Your task to perform on an android device: Go to Maps Image 0: 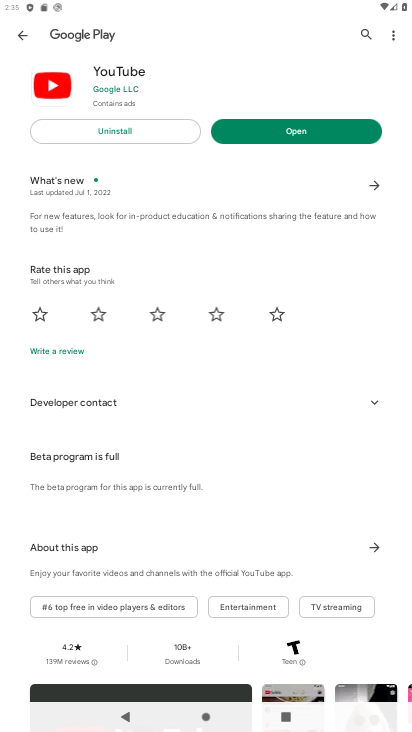
Step 0: press home button
Your task to perform on an android device: Go to Maps Image 1: 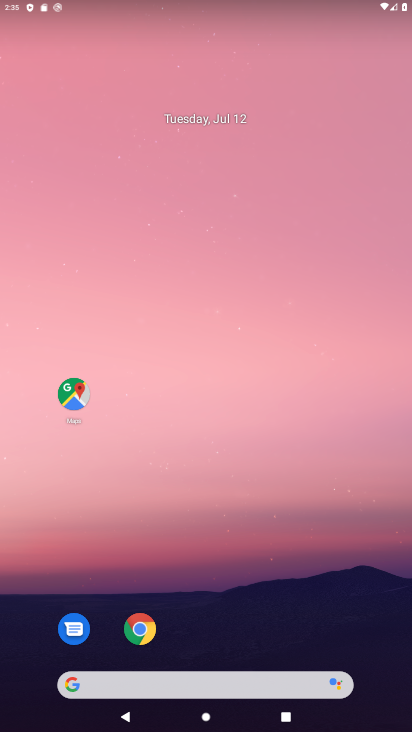
Step 1: click (74, 395)
Your task to perform on an android device: Go to Maps Image 2: 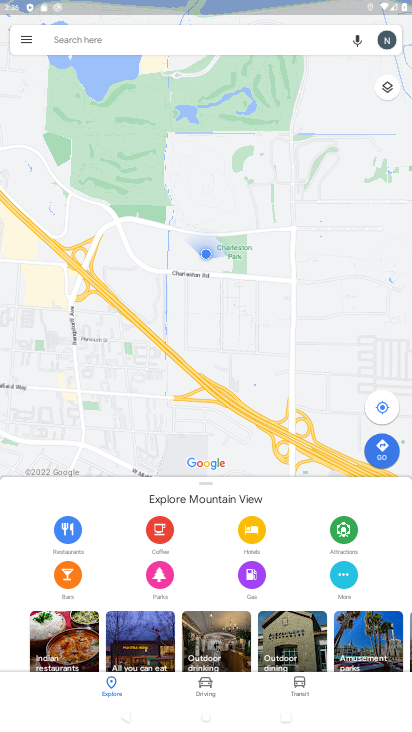
Step 2: click (74, 395)
Your task to perform on an android device: Go to Maps Image 3: 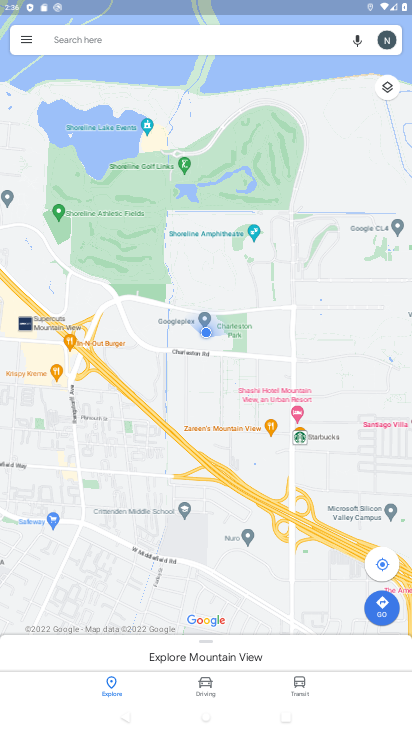
Step 3: task complete